Your task to perform on an android device: see sites visited before in the chrome app Image 0: 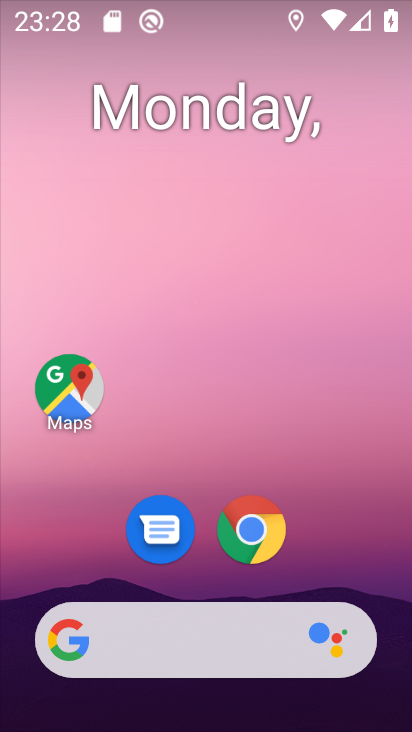
Step 0: click (252, 535)
Your task to perform on an android device: see sites visited before in the chrome app Image 1: 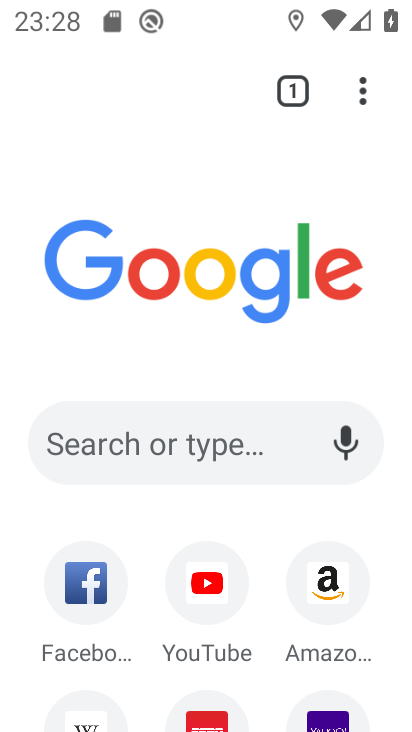
Step 1: click (359, 92)
Your task to perform on an android device: see sites visited before in the chrome app Image 2: 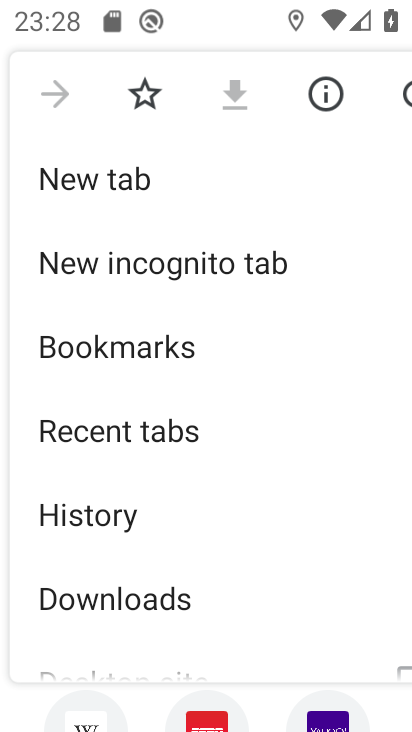
Step 2: click (106, 516)
Your task to perform on an android device: see sites visited before in the chrome app Image 3: 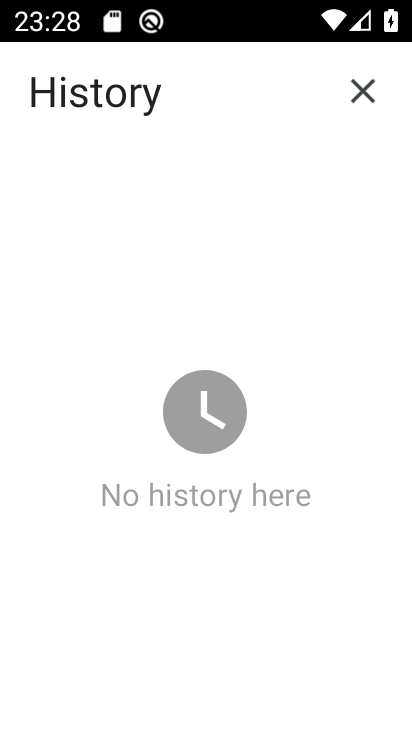
Step 3: task complete